Your task to perform on an android device: View the shopping cart on target. Image 0: 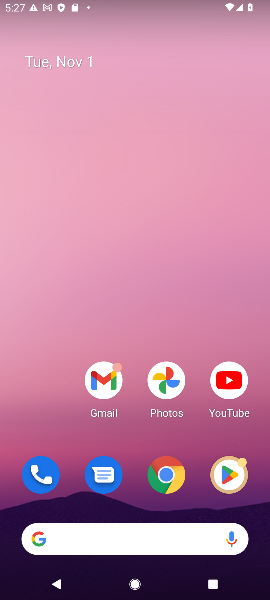
Step 0: click (163, 472)
Your task to perform on an android device: View the shopping cart on target. Image 1: 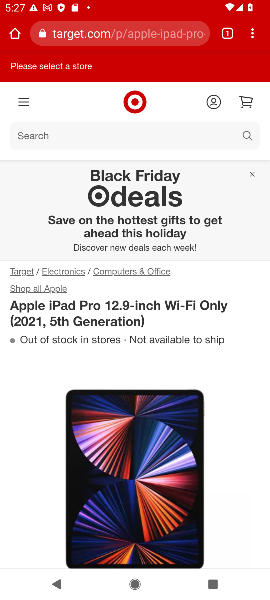
Step 1: click (144, 32)
Your task to perform on an android device: View the shopping cart on target. Image 2: 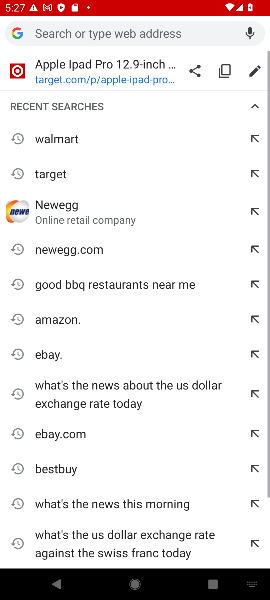
Step 2: click (115, 63)
Your task to perform on an android device: View the shopping cart on target. Image 3: 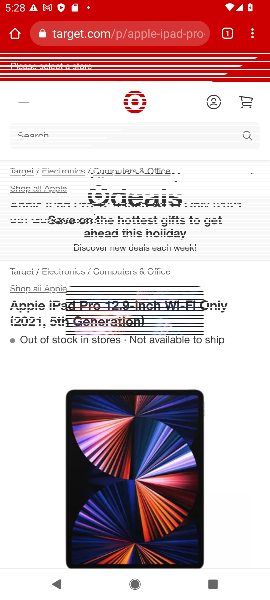
Step 3: click (247, 106)
Your task to perform on an android device: View the shopping cart on target. Image 4: 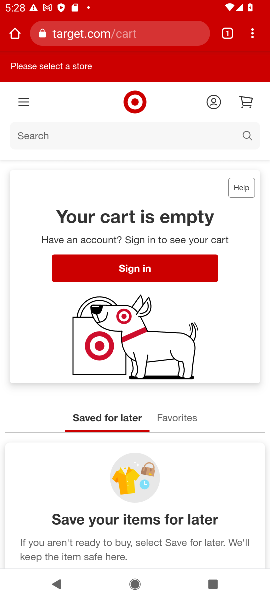
Step 4: task complete